Your task to perform on an android device: check storage Image 0: 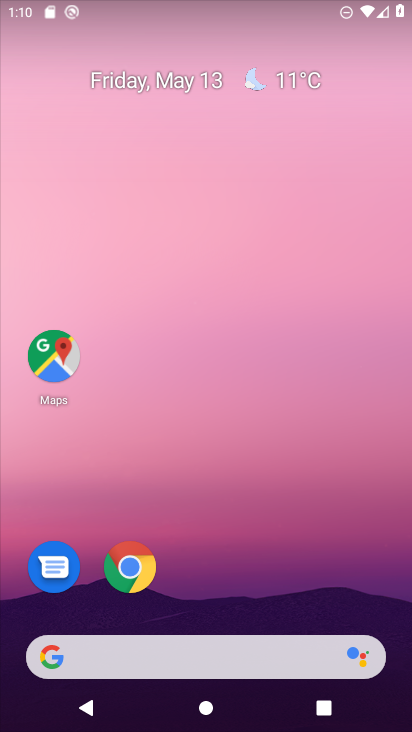
Step 0: drag from (213, 621) to (235, 61)
Your task to perform on an android device: check storage Image 1: 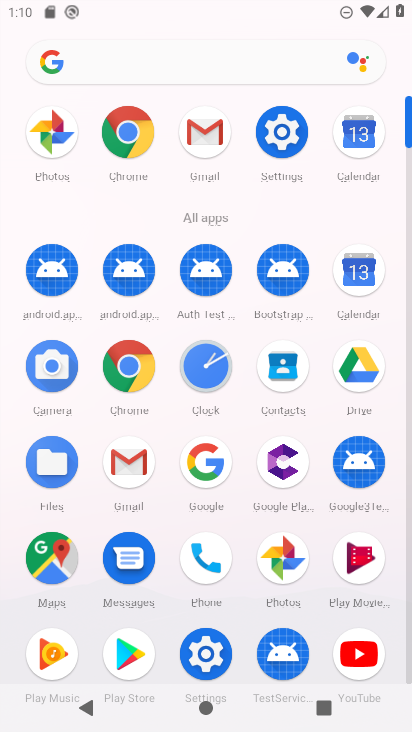
Step 1: click (278, 124)
Your task to perform on an android device: check storage Image 2: 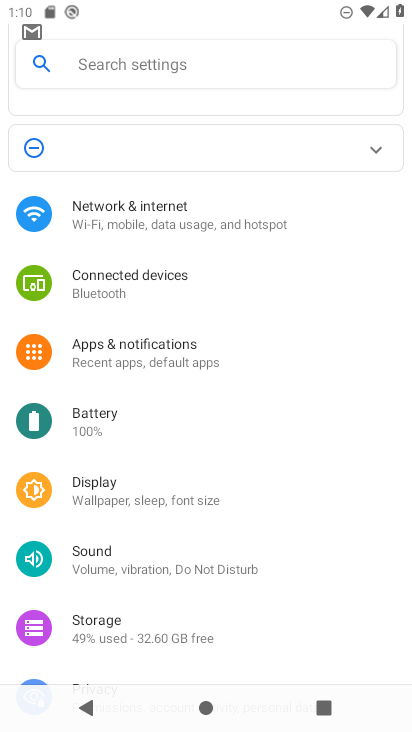
Step 2: click (134, 622)
Your task to perform on an android device: check storage Image 3: 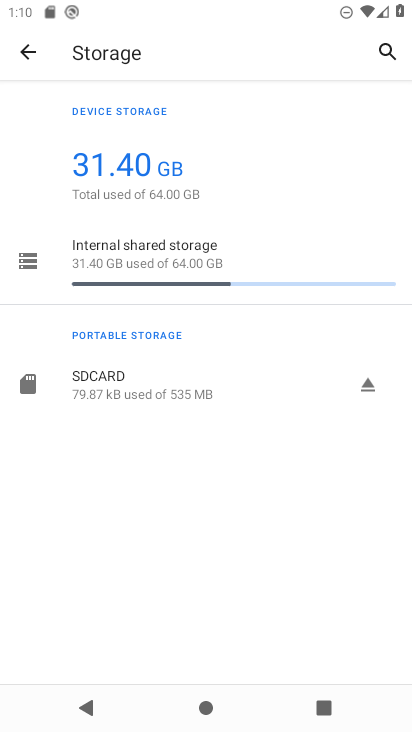
Step 3: task complete